Your task to perform on an android device: open app "Truecaller" Image 0: 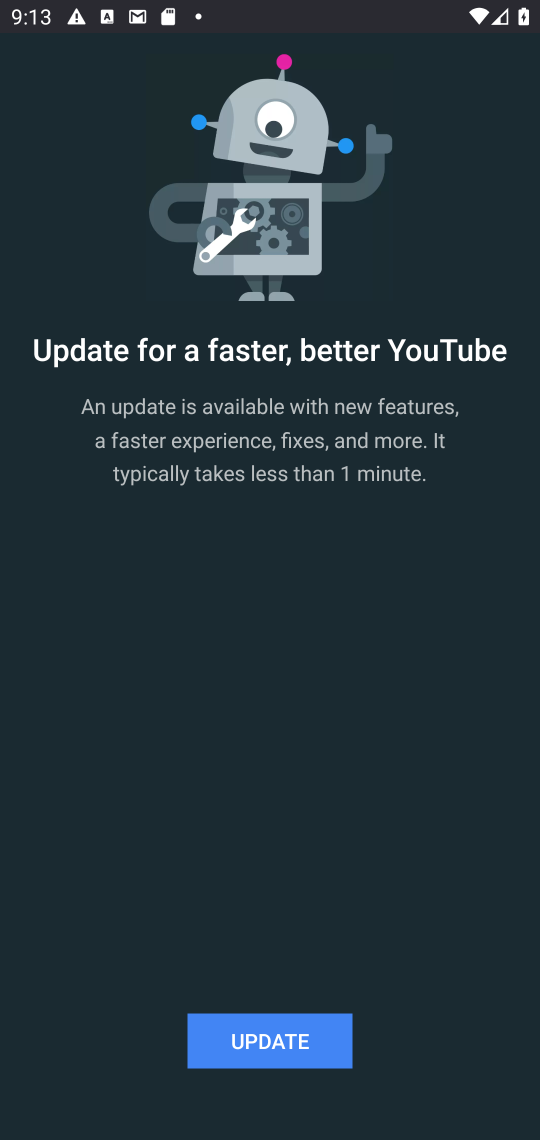
Step 0: press home button
Your task to perform on an android device: open app "Truecaller" Image 1: 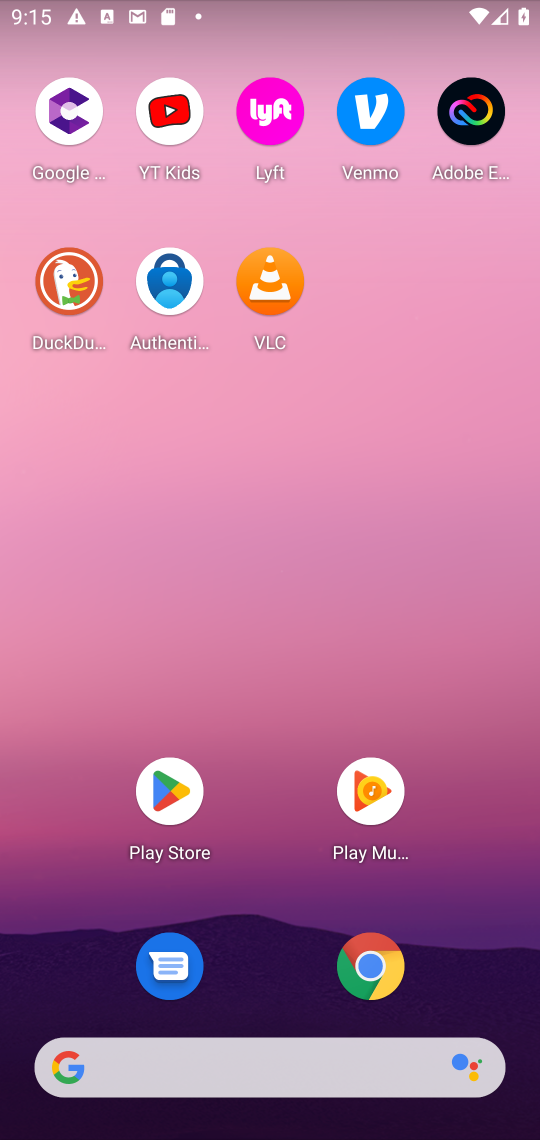
Step 1: click (178, 796)
Your task to perform on an android device: open app "Truecaller" Image 2: 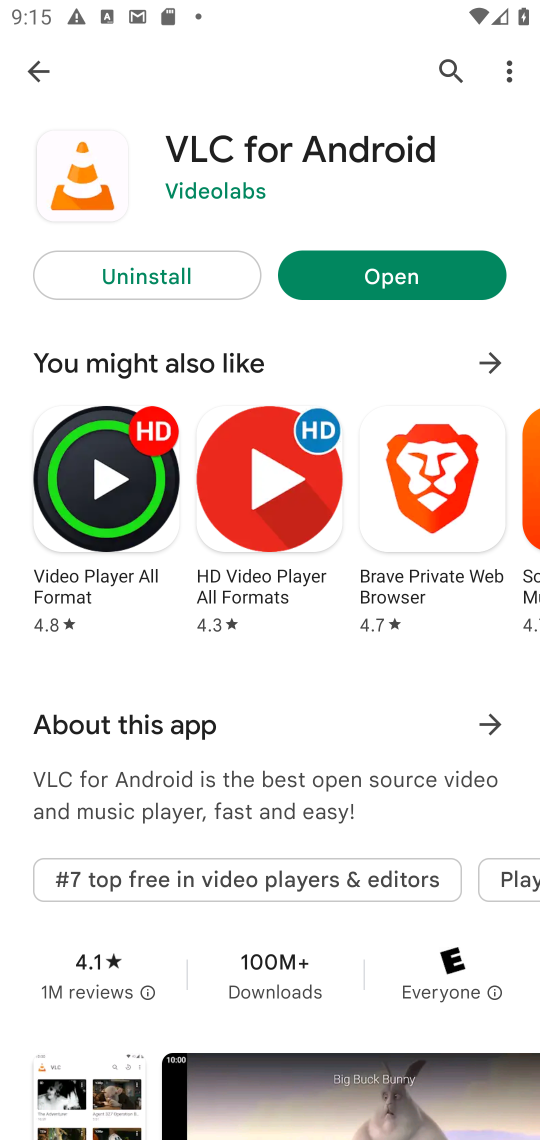
Step 2: click (454, 65)
Your task to perform on an android device: open app "Truecaller" Image 3: 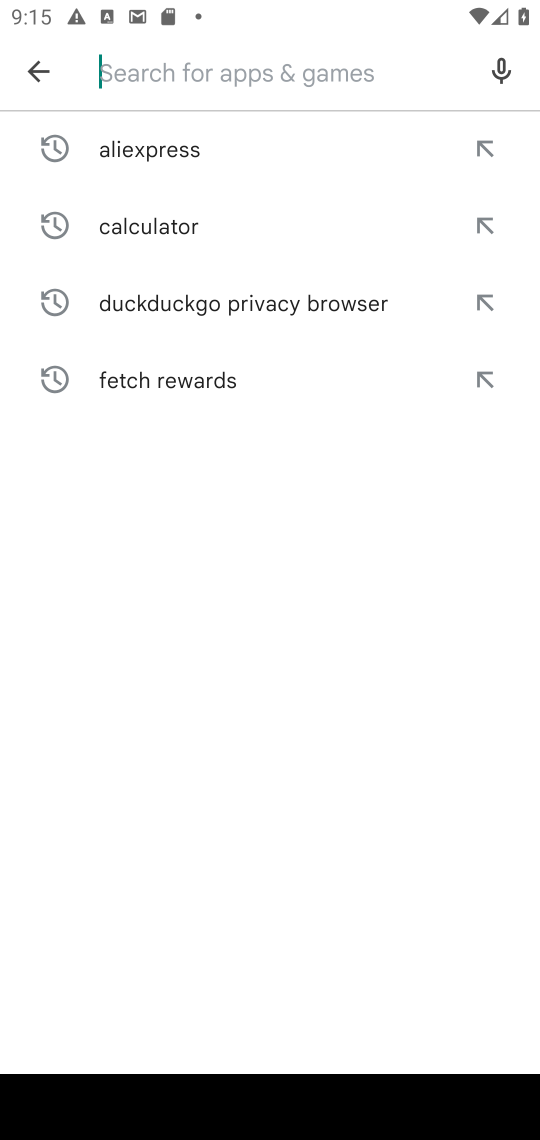
Step 3: type "Truecaller"
Your task to perform on an android device: open app "Truecaller" Image 4: 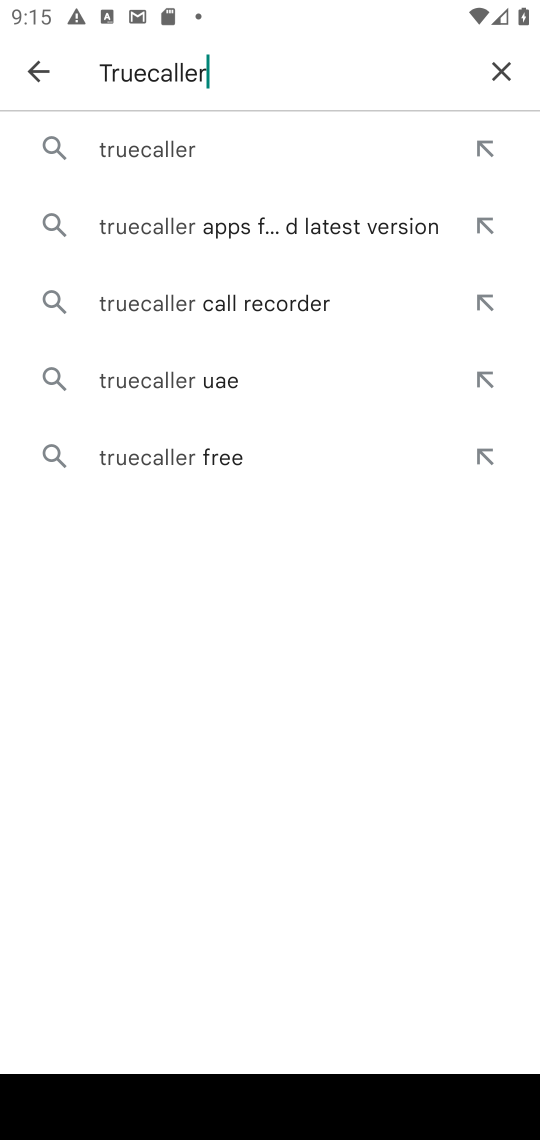
Step 4: click (141, 144)
Your task to perform on an android device: open app "Truecaller" Image 5: 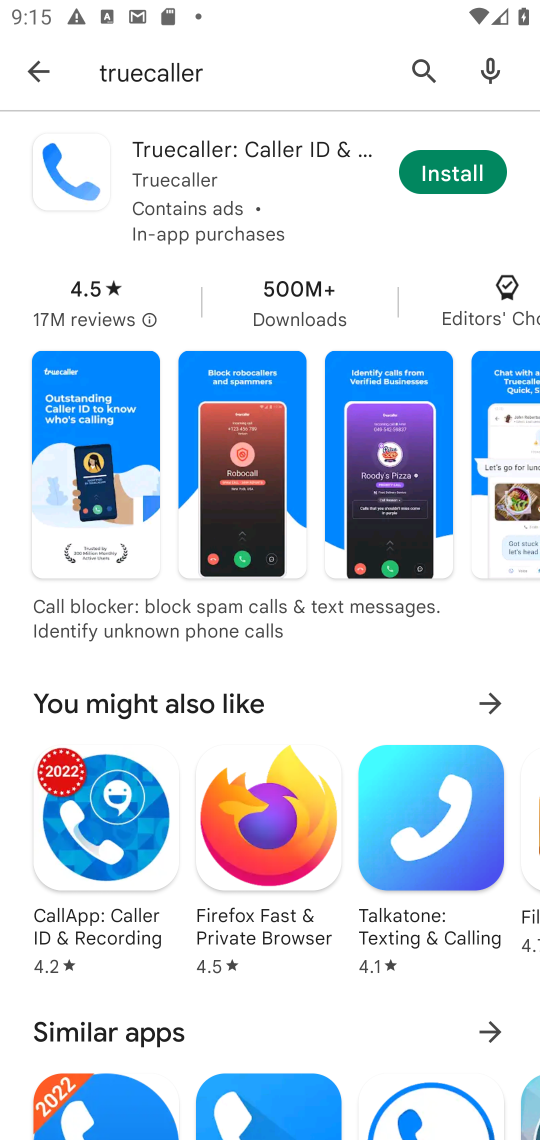
Step 5: click (436, 174)
Your task to perform on an android device: open app "Truecaller" Image 6: 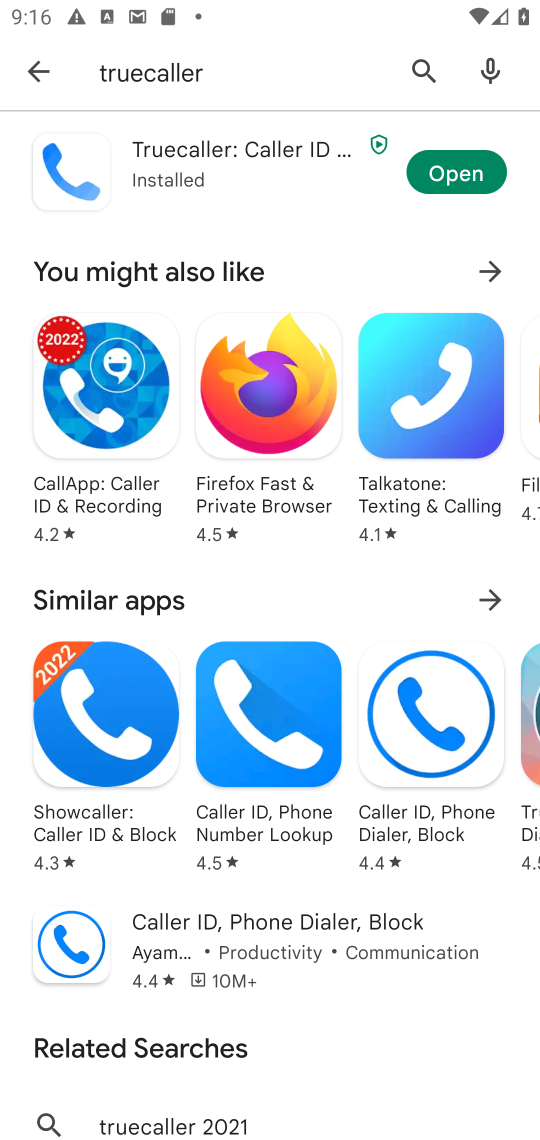
Step 6: click (448, 174)
Your task to perform on an android device: open app "Truecaller" Image 7: 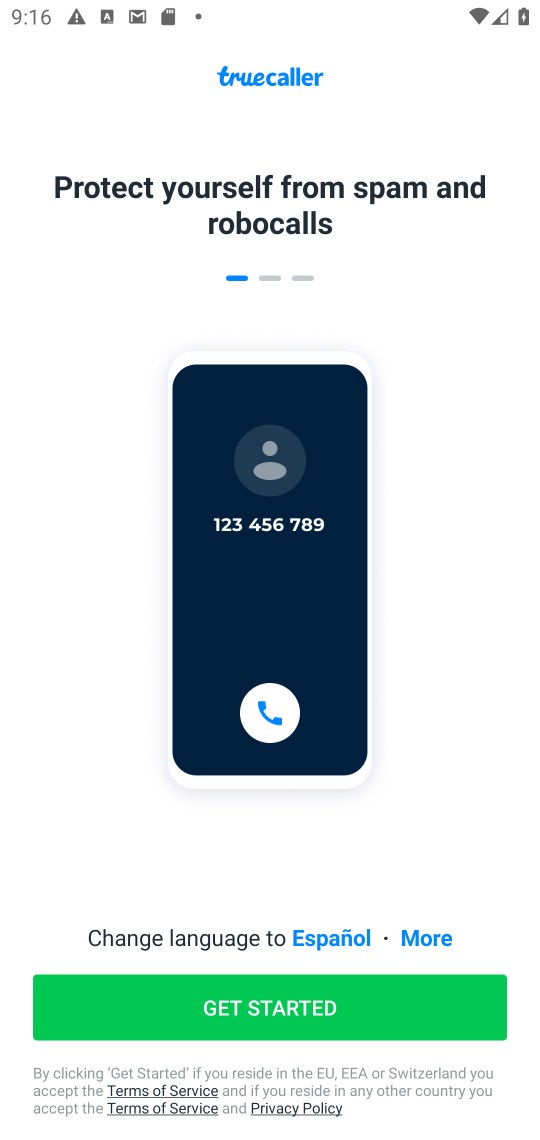
Step 7: task complete